Your task to perform on an android device: Open notification settings Image 0: 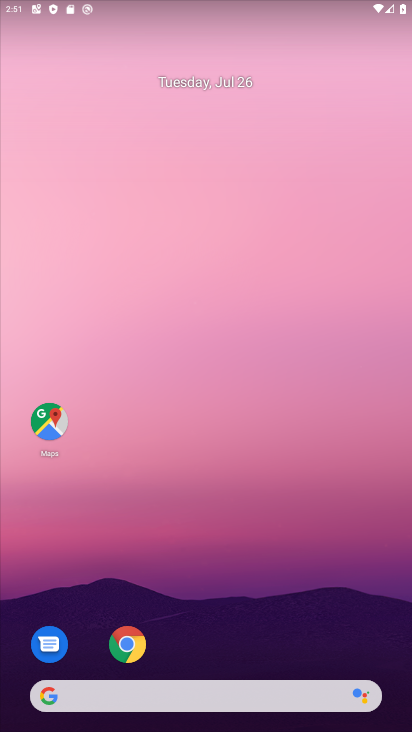
Step 0: drag from (203, 689) to (203, 180)
Your task to perform on an android device: Open notification settings Image 1: 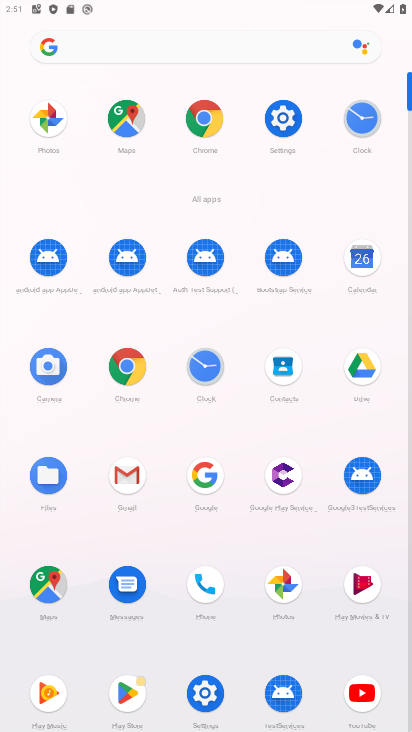
Step 1: click (285, 127)
Your task to perform on an android device: Open notification settings Image 2: 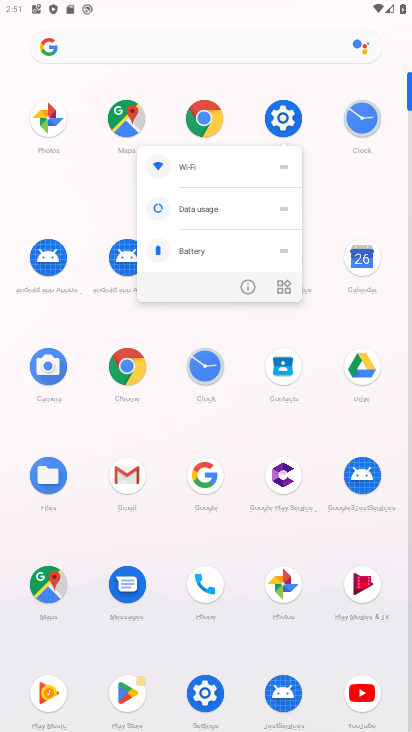
Step 2: click (286, 123)
Your task to perform on an android device: Open notification settings Image 3: 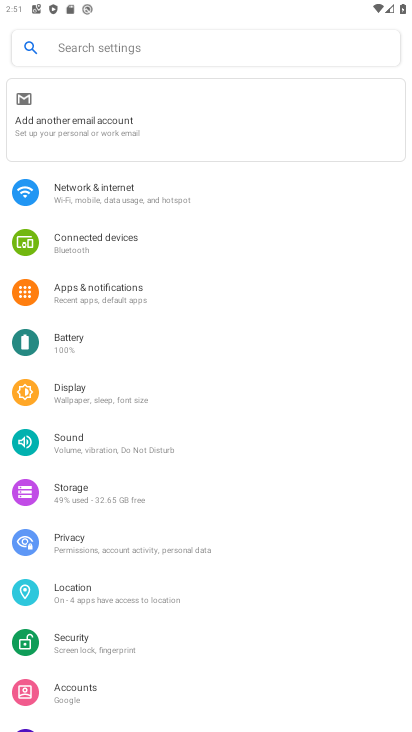
Step 3: click (90, 289)
Your task to perform on an android device: Open notification settings Image 4: 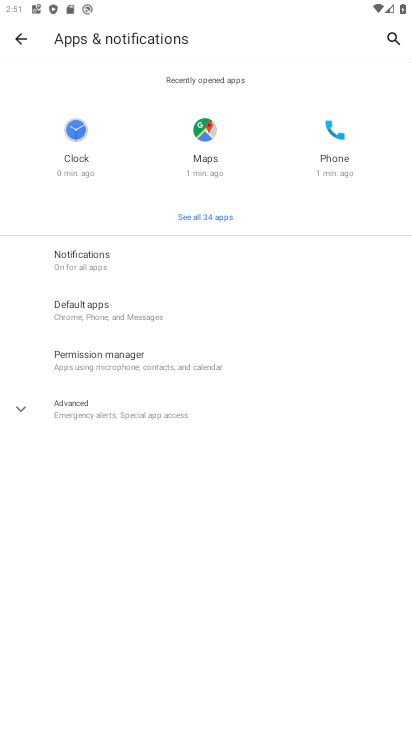
Step 4: click (96, 403)
Your task to perform on an android device: Open notification settings Image 5: 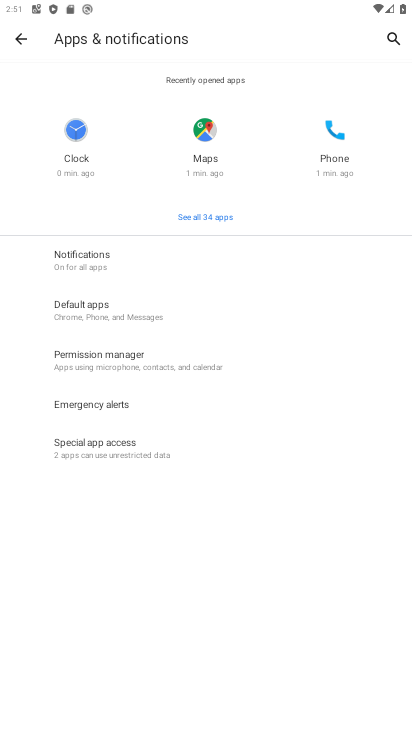
Step 5: task complete